Your task to perform on an android device: Play the last video I watched on Youtube Image 0: 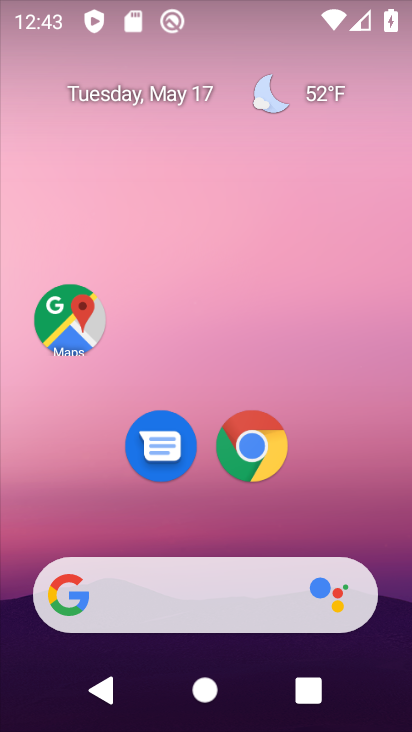
Step 0: drag from (330, 533) to (305, 212)
Your task to perform on an android device: Play the last video I watched on Youtube Image 1: 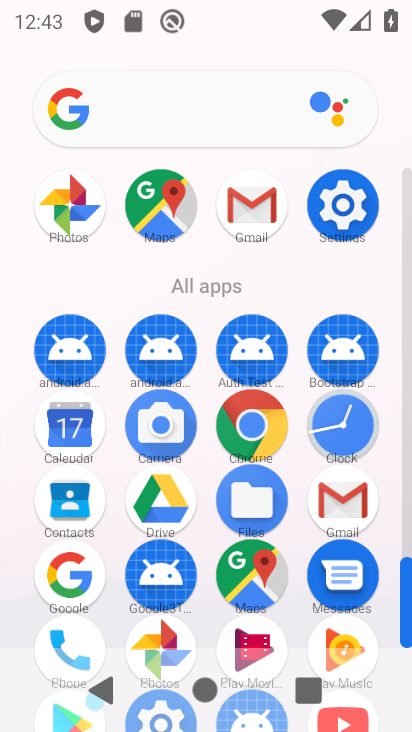
Step 1: drag from (179, 279) to (169, 19)
Your task to perform on an android device: Play the last video I watched on Youtube Image 2: 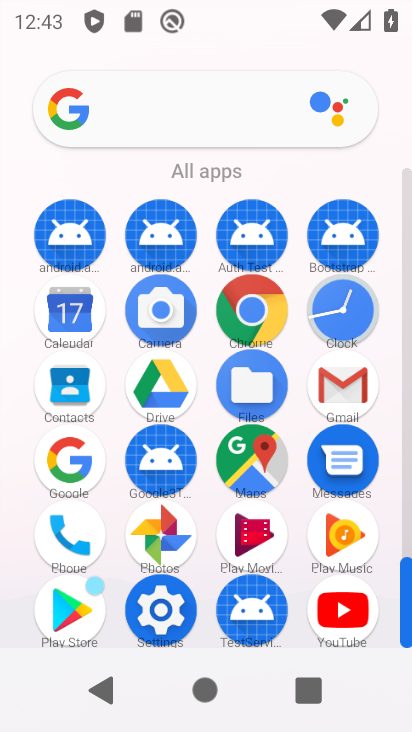
Step 2: click (343, 618)
Your task to perform on an android device: Play the last video I watched on Youtube Image 3: 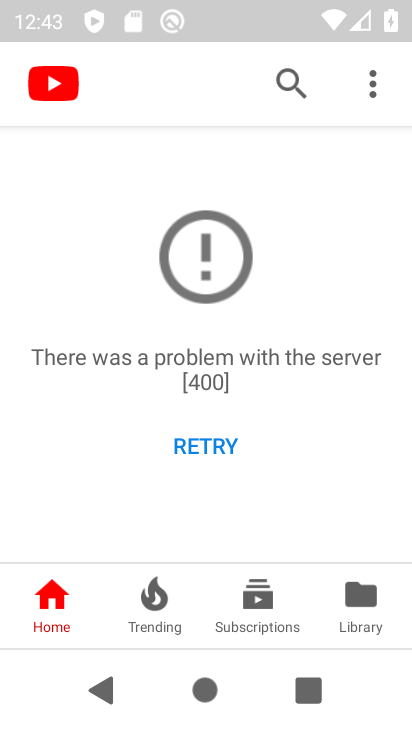
Step 3: click (354, 601)
Your task to perform on an android device: Play the last video I watched on Youtube Image 4: 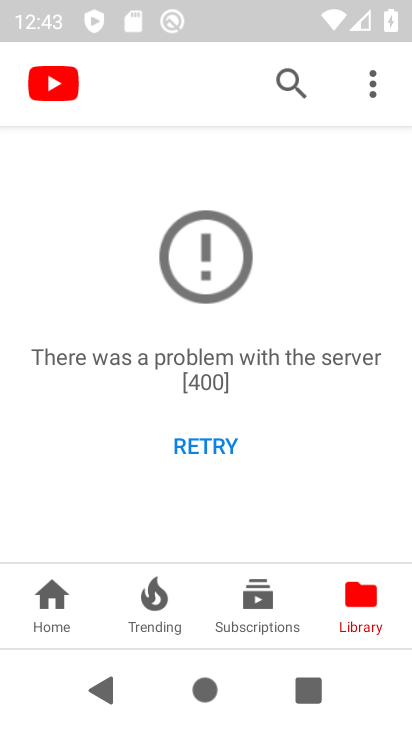
Step 4: click (181, 439)
Your task to perform on an android device: Play the last video I watched on Youtube Image 5: 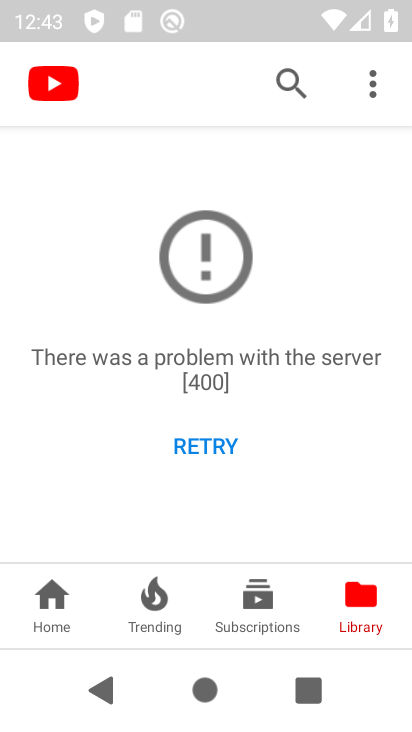
Step 5: click (198, 439)
Your task to perform on an android device: Play the last video I watched on Youtube Image 6: 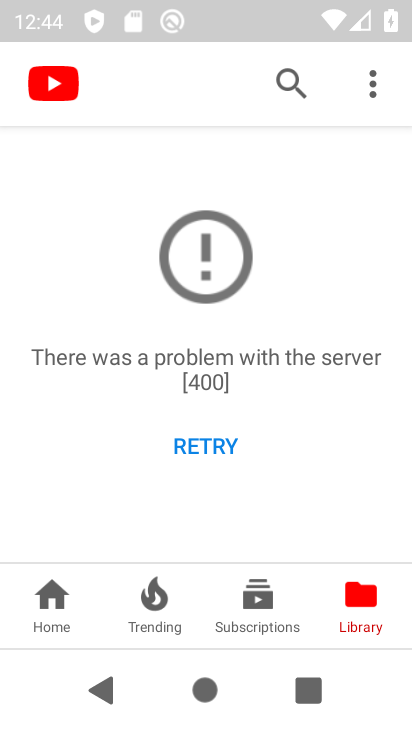
Step 6: task complete